Your task to perform on an android device: turn on translation in the chrome app Image 0: 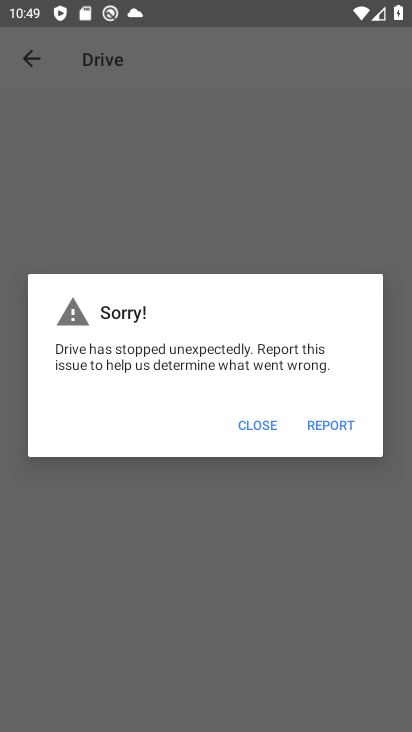
Step 0: click (250, 423)
Your task to perform on an android device: turn on translation in the chrome app Image 1: 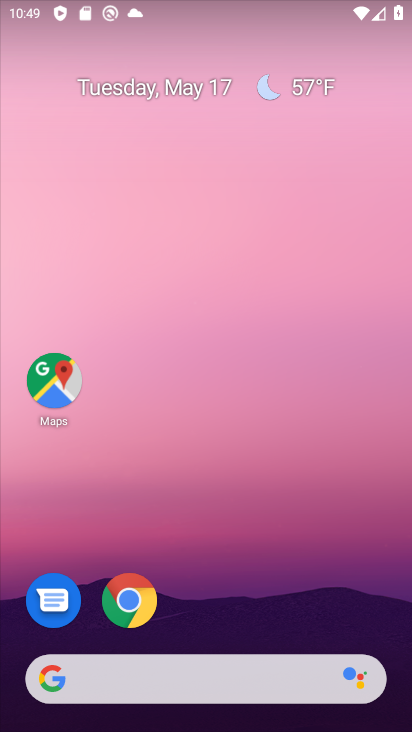
Step 1: drag from (328, 602) to (215, 86)
Your task to perform on an android device: turn on translation in the chrome app Image 2: 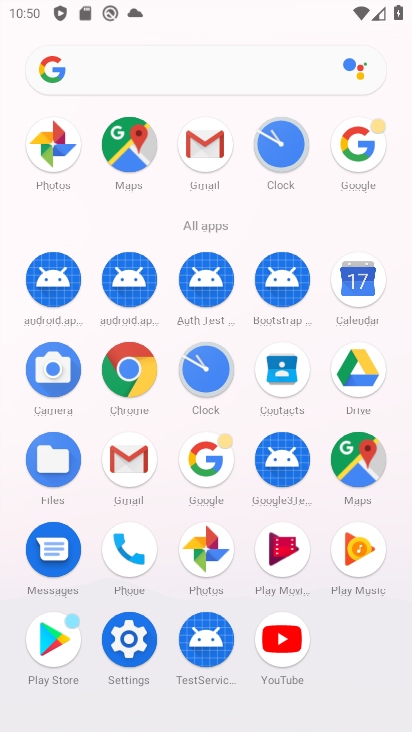
Step 2: click (127, 375)
Your task to perform on an android device: turn on translation in the chrome app Image 3: 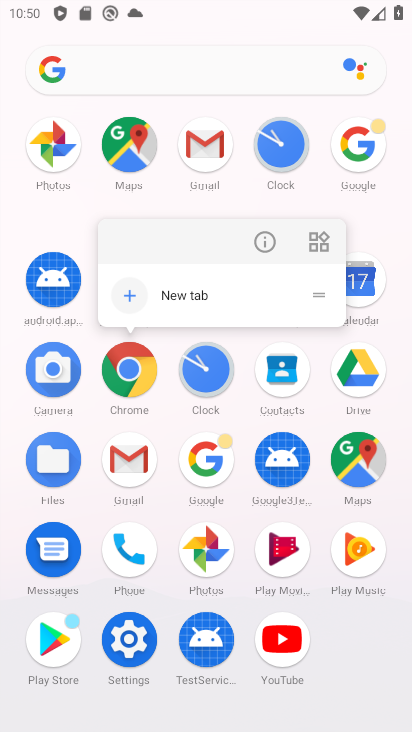
Step 3: click (117, 375)
Your task to perform on an android device: turn on translation in the chrome app Image 4: 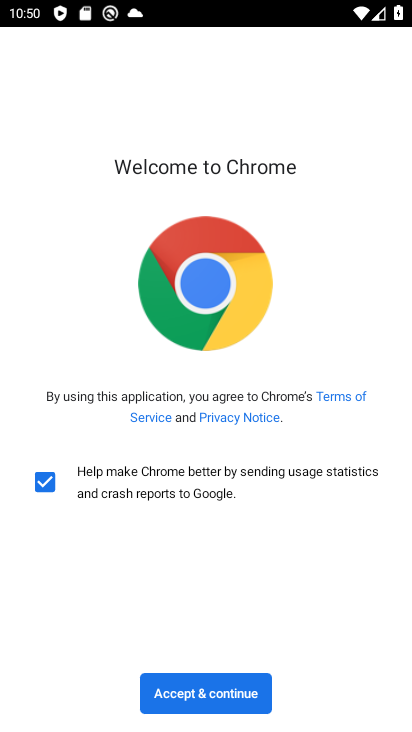
Step 4: click (204, 701)
Your task to perform on an android device: turn on translation in the chrome app Image 5: 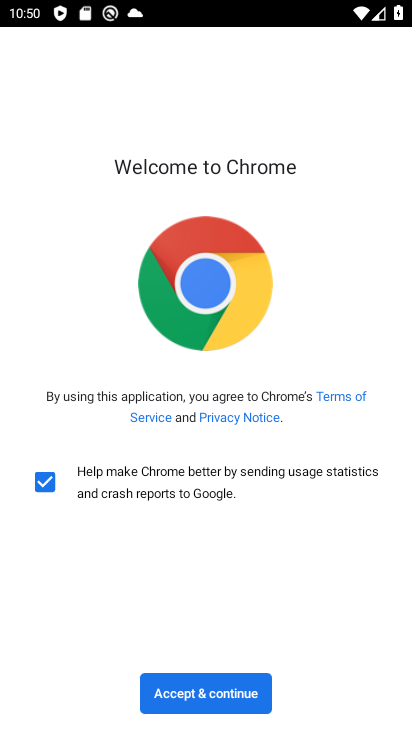
Step 5: click (205, 699)
Your task to perform on an android device: turn on translation in the chrome app Image 6: 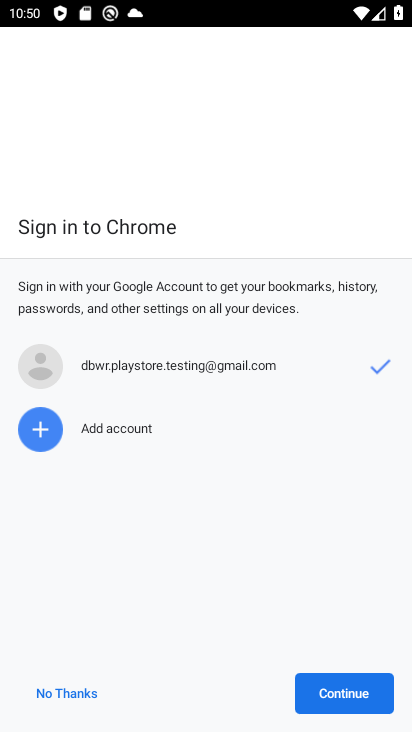
Step 6: click (205, 686)
Your task to perform on an android device: turn on translation in the chrome app Image 7: 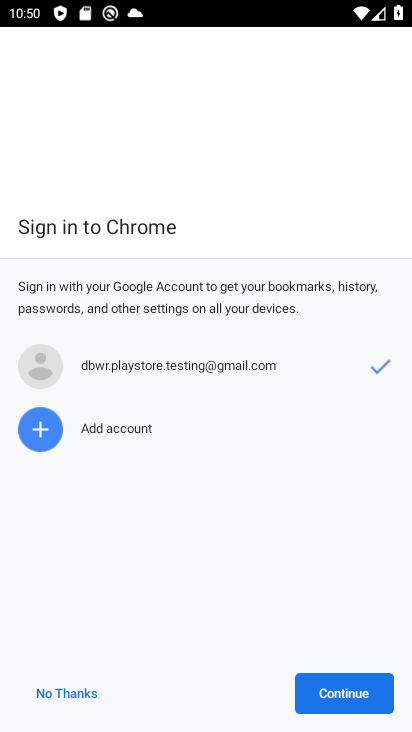
Step 7: click (350, 706)
Your task to perform on an android device: turn on translation in the chrome app Image 8: 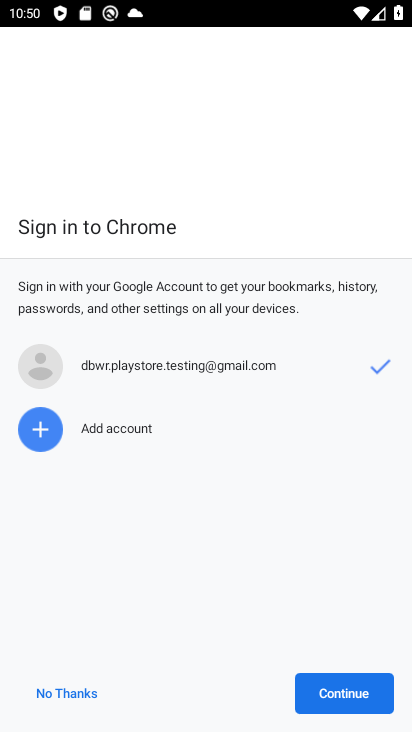
Step 8: click (350, 707)
Your task to perform on an android device: turn on translation in the chrome app Image 9: 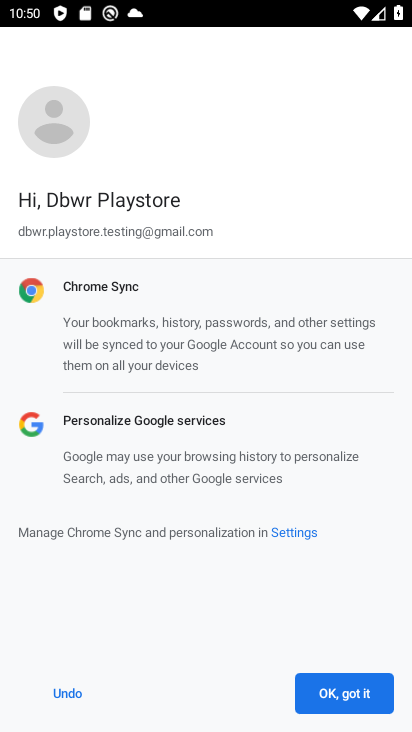
Step 9: click (350, 699)
Your task to perform on an android device: turn on translation in the chrome app Image 10: 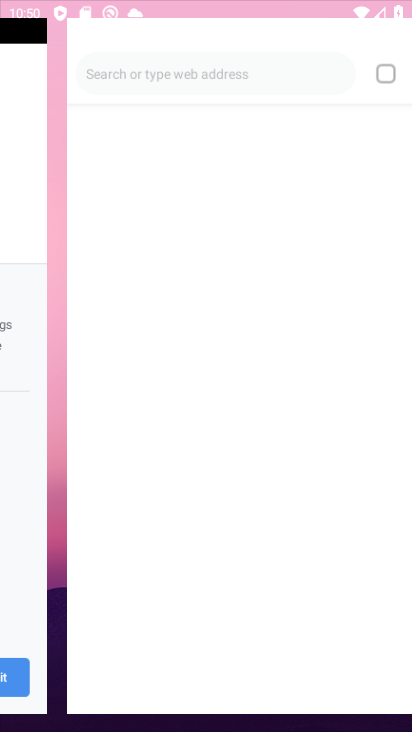
Step 10: click (351, 697)
Your task to perform on an android device: turn on translation in the chrome app Image 11: 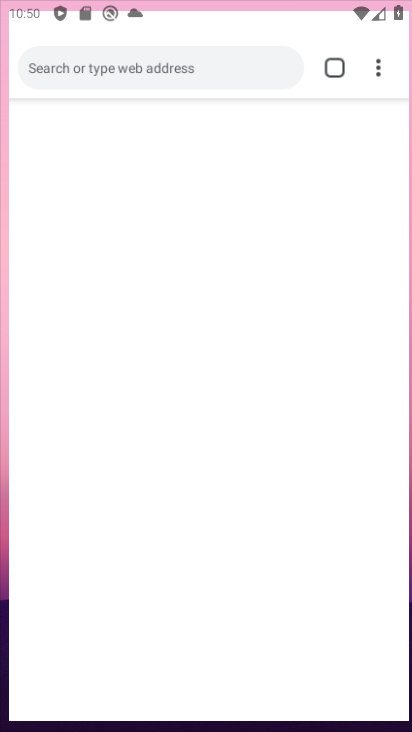
Step 11: click (351, 697)
Your task to perform on an android device: turn on translation in the chrome app Image 12: 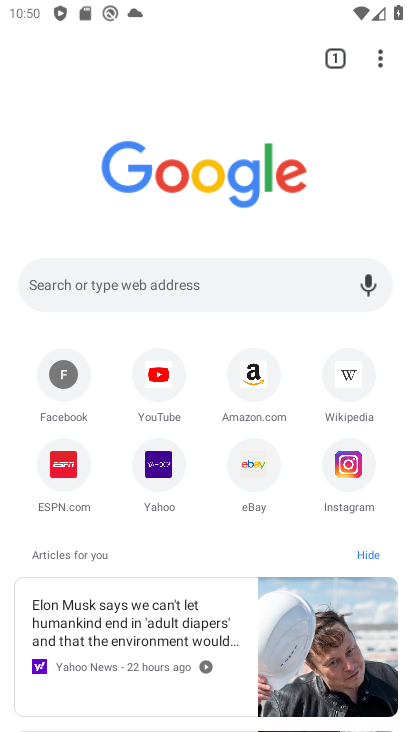
Step 12: drag from (373, 61) to (165, 494)
Your task to perform on an android device: turn on translation in the chrome app Image 13: 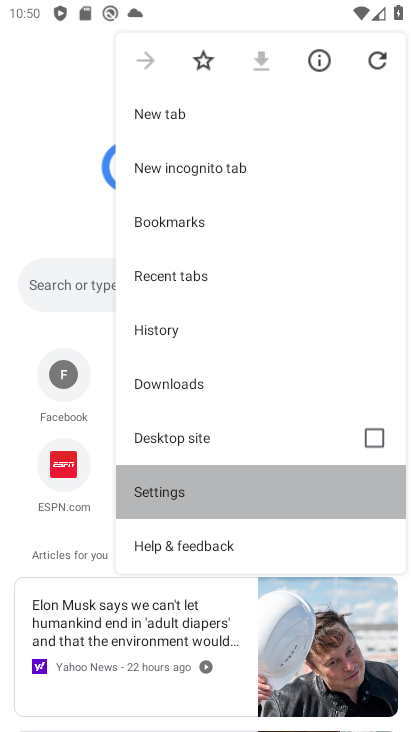
Step 13: click (170, 491)
Your task to perform on an android device: turn on translation in the chrome app Image 14: 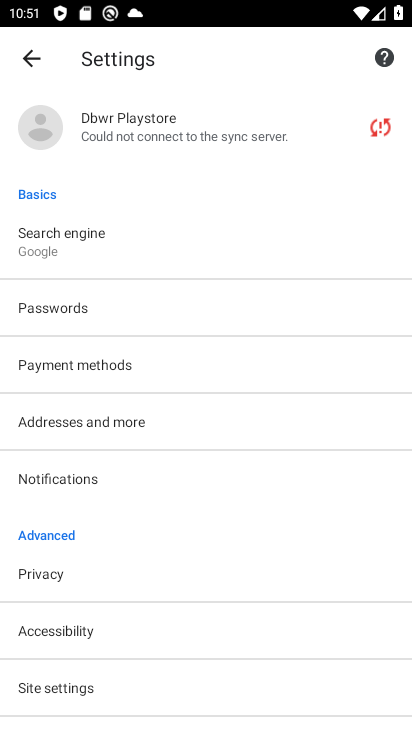
Step 14: drag from (145, 531) to (127, 51)
Your task to perform on an android device: turn on translation in the chrome app Image 15: 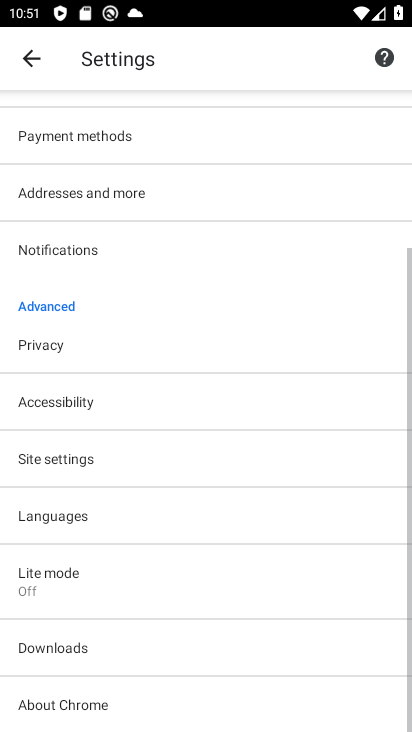
Step 15: click (41, 515)
Your task to perform on an android device: turn on translation in the chrome app Image 16: 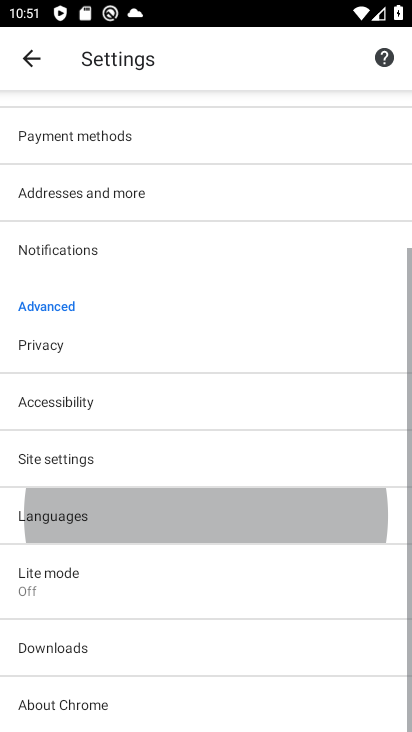
Step 16: click (43, 513)
Your task to perform on an android device: turn on translation in the chrome app Image 17: 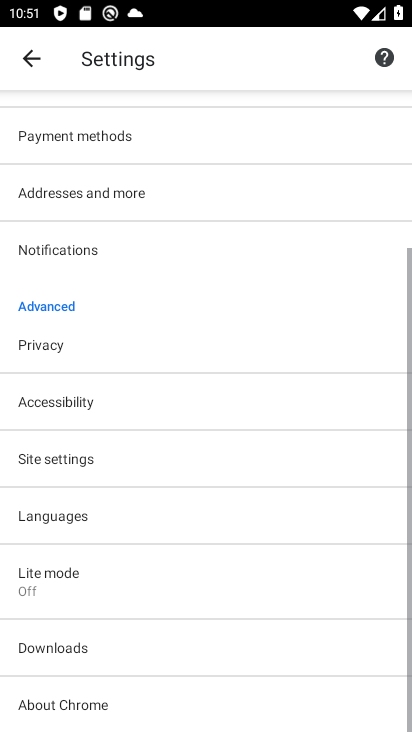
Step 17: click (45, 512)
Your task to perform on an android device: turn on translation in the chrome app Image 18: 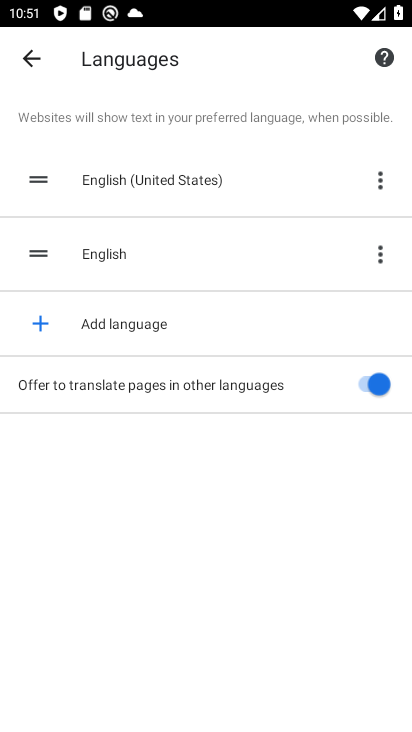
Step 18: click (378, 380)
Your task to perform on an android device: turn on translation in the chrome app Image 19: 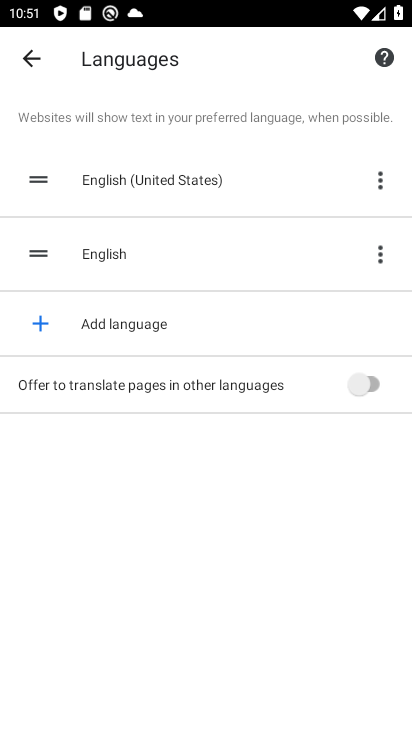
Step 19: click (361, 388)
Your task to perform on an android device: turn on translation in the chrome app Image 20: 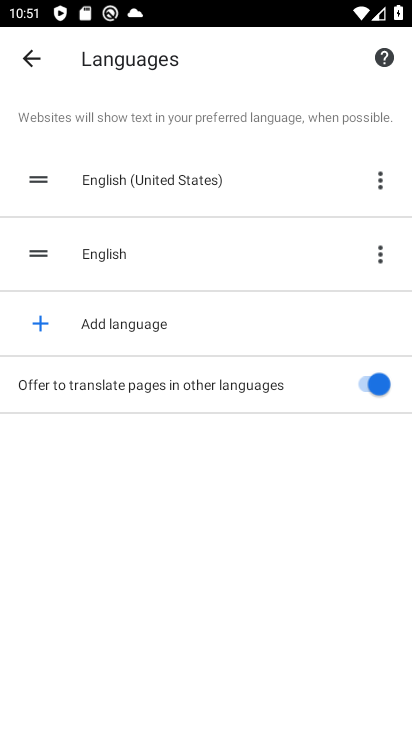
Step 20: task complete